Your task to perform on an android device: Open CNN.com Image 0: 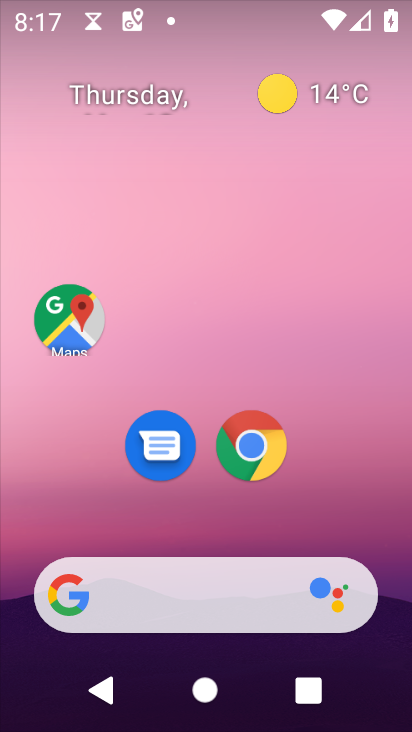
Step 0: click (258, 438)
Your task to perform on an android device: Open CNN.com Image 1: 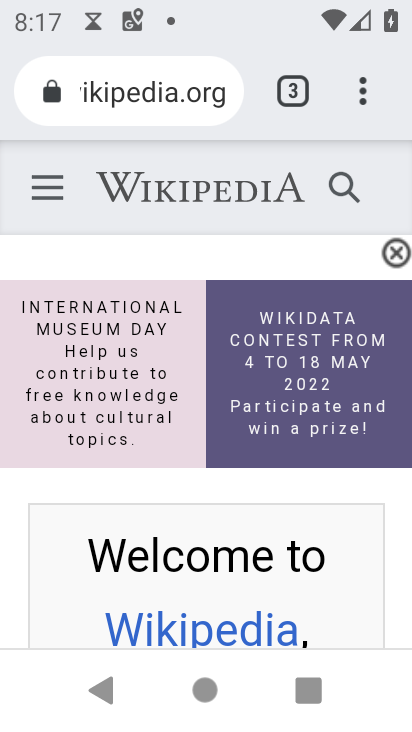
Step 1: click (363, 105)
Your task to perform on an android device: Open CNN.com Image 2: 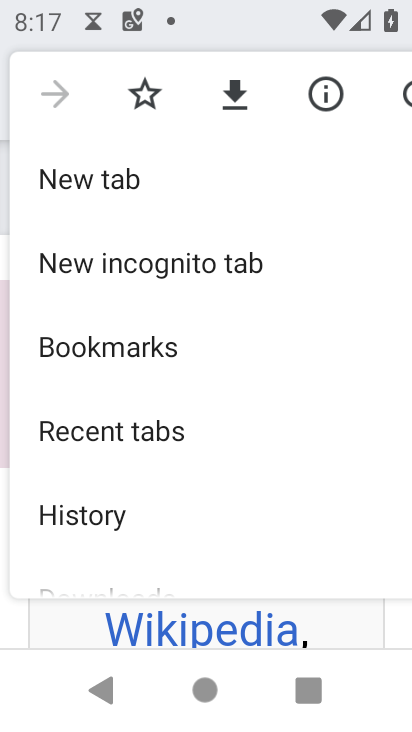
Step 2: click (99, 184)
Your task to perform on an android device: Open CNN.com Image 3: 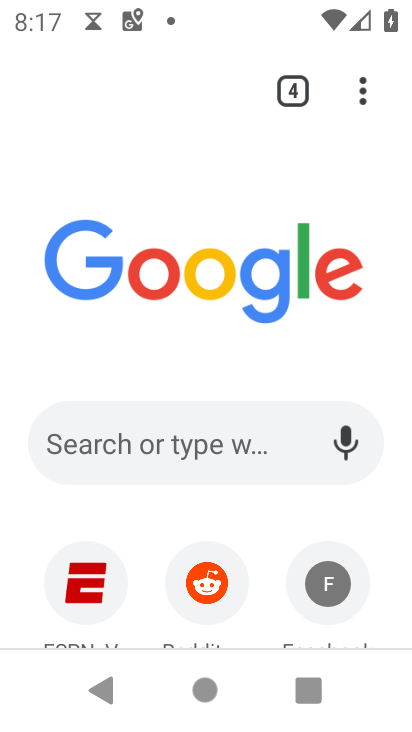
Step 3: click (203, 441)
Your task to perform on an android device: Open CNN.com Image 4: 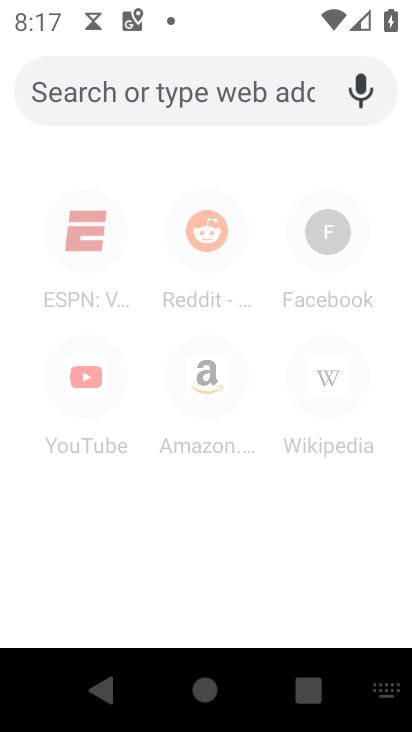
Step 4: type "CNN.com"
Your task to perform on an android device: Open CNN.com Image 5: 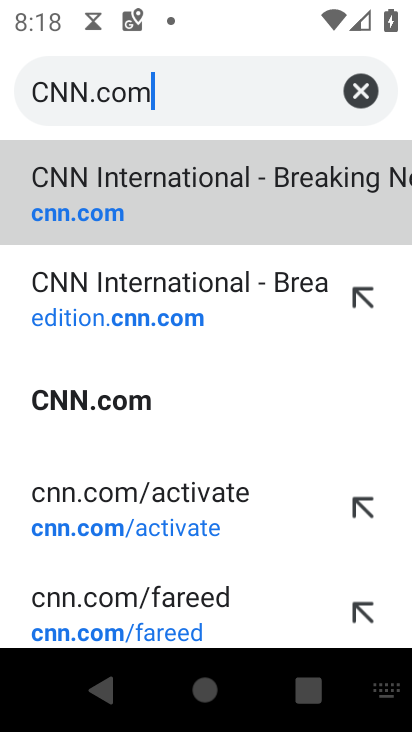
Step 5: click (162, 190)
Your task to perform on an android device: Open CNN.com Image 6: 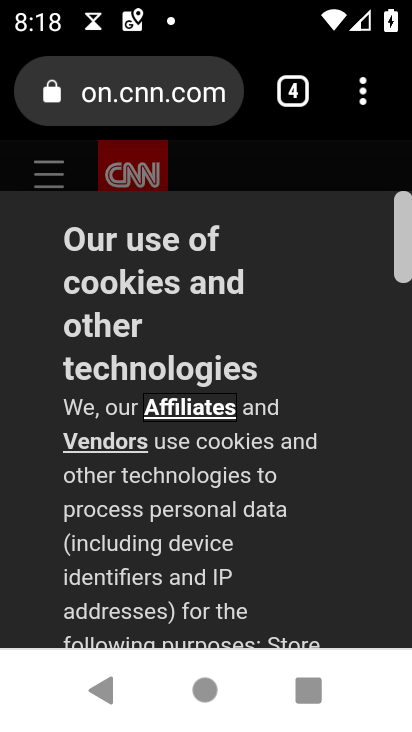
Step 6: task complete